Your task to perform on an android device: Open the calendar app, open the side menu, and click the "Day" option Image 0: 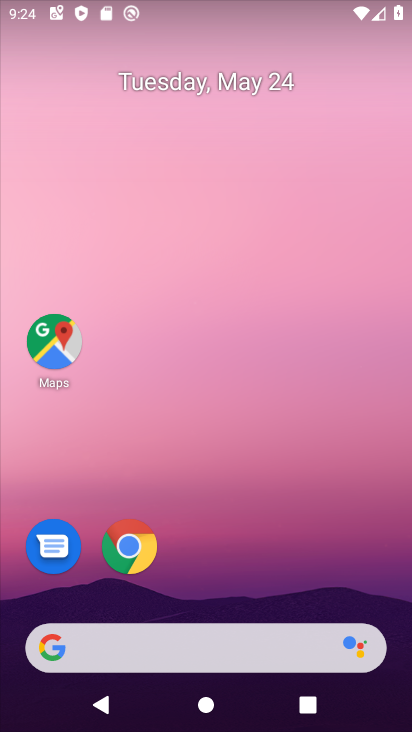
Step 0: drag from (223, 610) to (230, 230)
Your task to perform on an android device: Open the calendar app, open the side menu, and click the "Day" option Image 1: 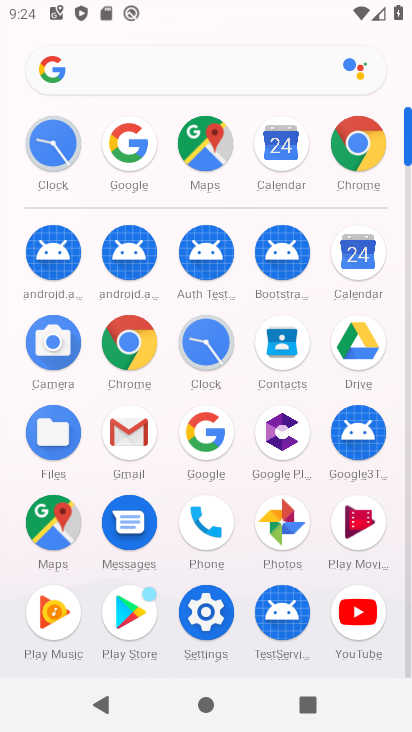
Step 1: click (355, 259)
Your task to perform on an android device: Open the calendar app, open the side menu, and click the "Day" option Image 2: 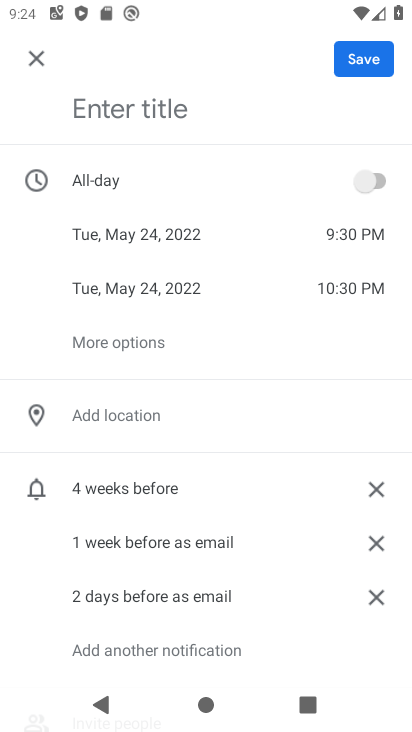
Step 2: click (32, 57)
Your task to perform on an android device: Open the calendar app, open the side menu, and click the "Day" option Image 3: 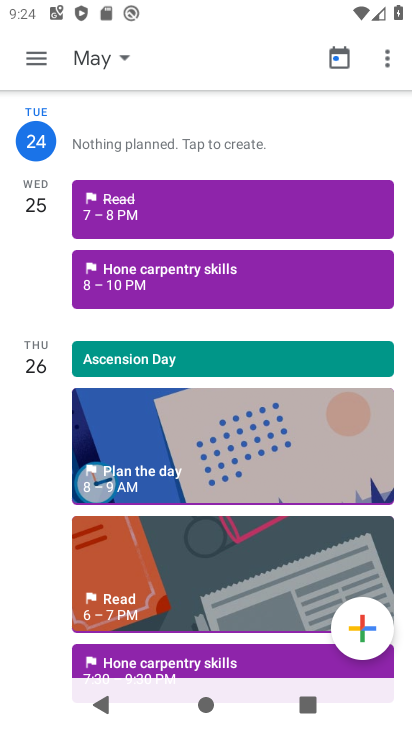
Step 3: click (44, 54)
Your task to perform on an android device: Open the calendar app, open the side menu, and click the "Day" option Image 4: 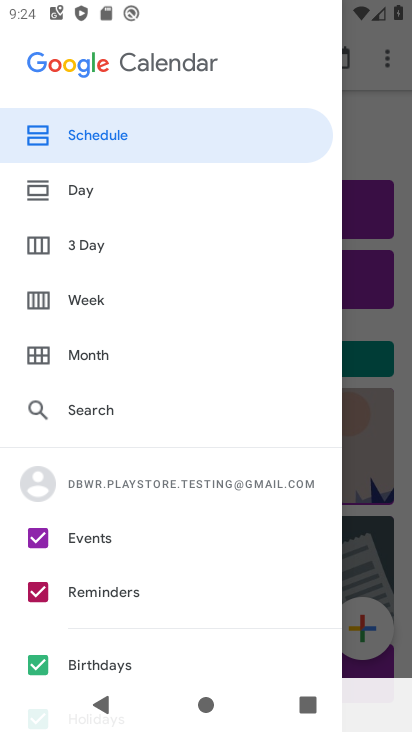
Step 4: click (93, 194)
Your task to perform on an android device: Open the calendar app, open the side menu, and click the "Day" option Image 5: 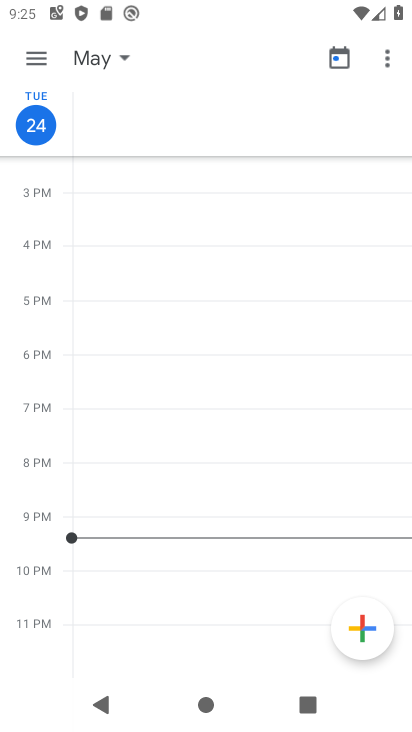
Step 5: task complete